Your task to perform on an android device: Open Yahoo.com Image 0: 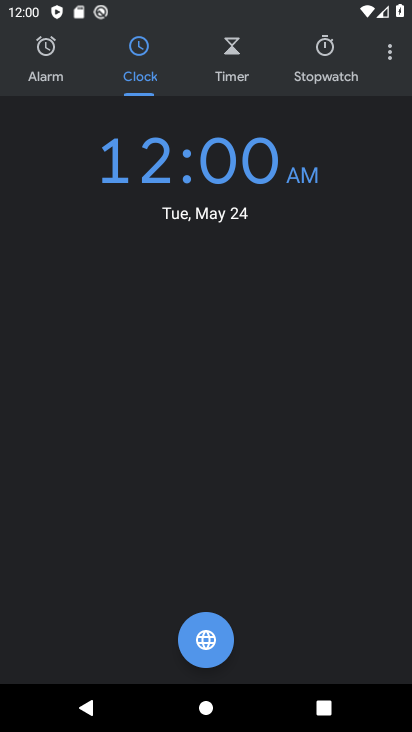
Step 0: press home button
Your task to perform on an android device: Open Yahoo.com Image 1: 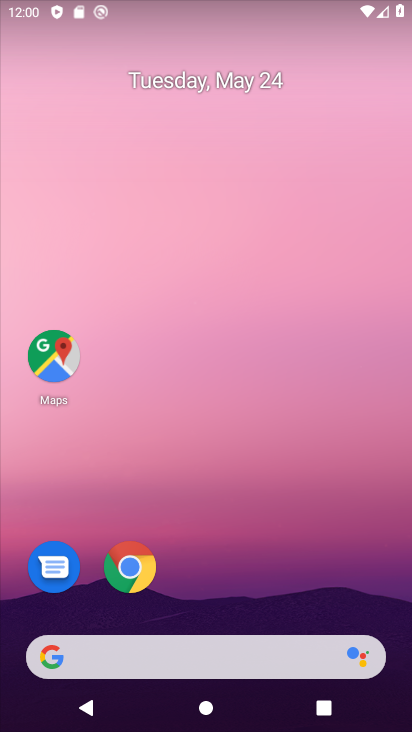
Step 1: click (137, 571)
Your task to perform on an android device: Open Yahoo.com Image 2: 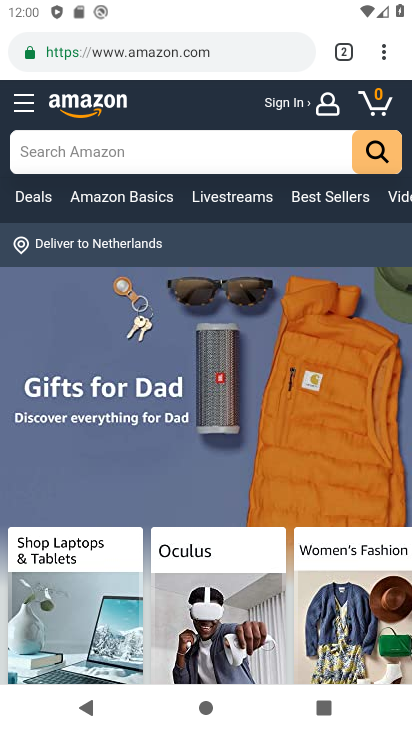
Step 2: click (269, 51)
Your task to perform on an android device: Open Yahoo.com Image 3: 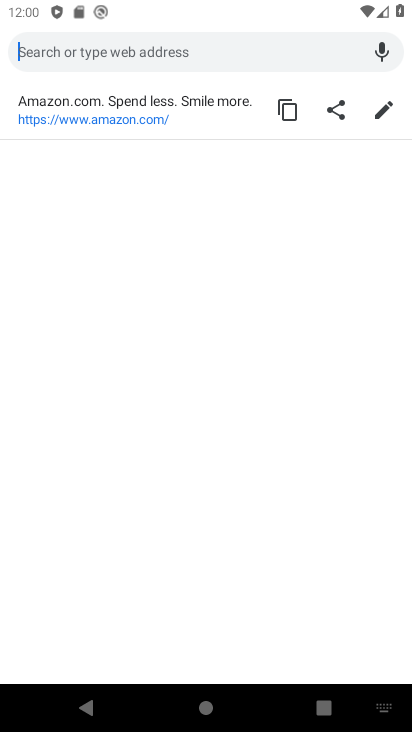
Step 3: type "yahoo.com"
Your task to perform on an android device: Open Yahoo.com Image 4: 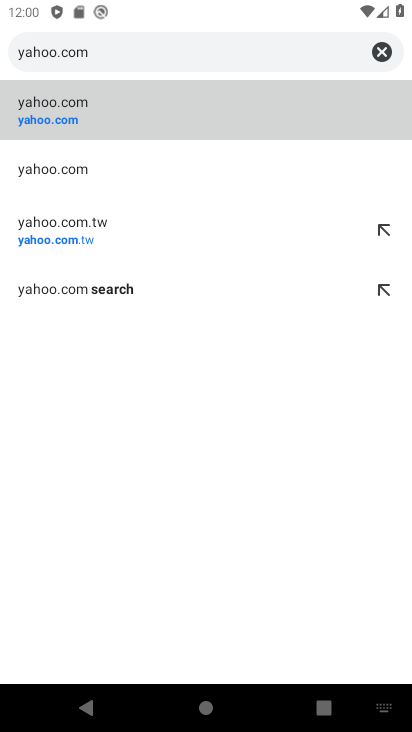
Step 4: click (53, 123)
Your task to perform on an android device: Open Yahoo.com Image 5: 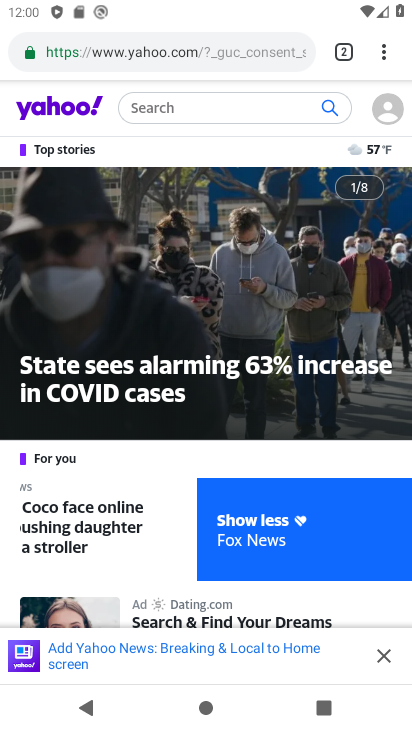
Step 5: task complete